Your task to perform on an android device: turn on notifications settings in the gmail app Image 0: 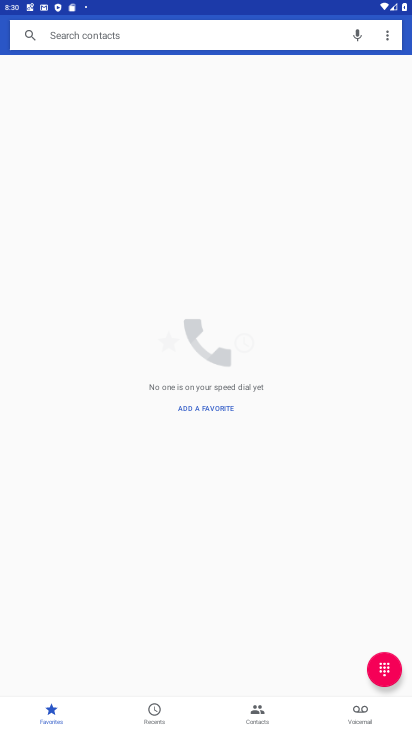
Step 0: press home button
Your task to perform on an android device: turn on notifications settings in the gmail app Image 1: 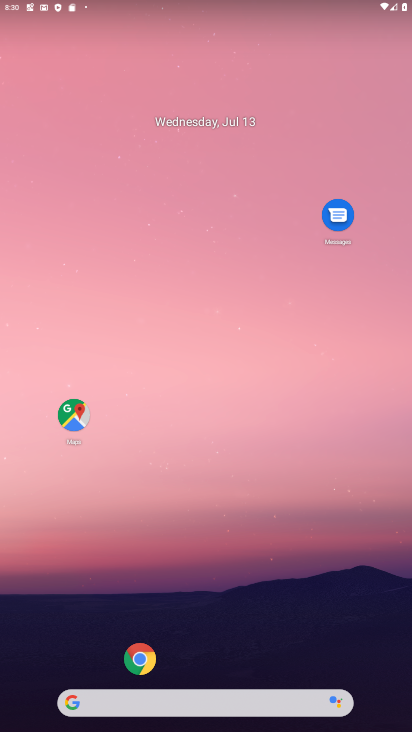
Step 1: drag from (29, 713) to (240, 16)
Your task to perform on an android device: turn on notifications settings in the gmail app Image 2: 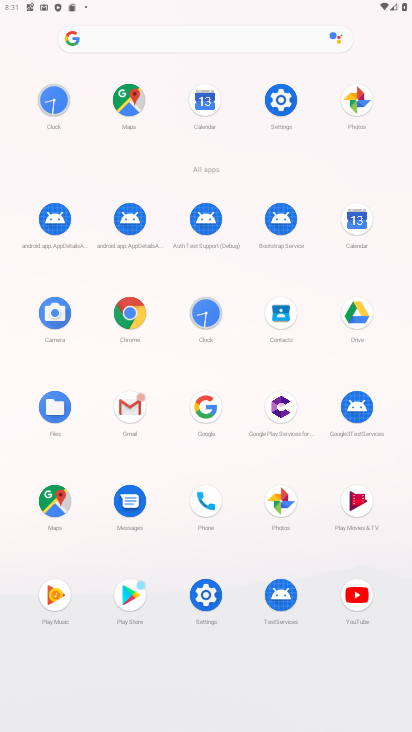
Step 2: click (143, 406)
Your task to perform on an android device: turn on notifications settings in the gmail app Image 3: 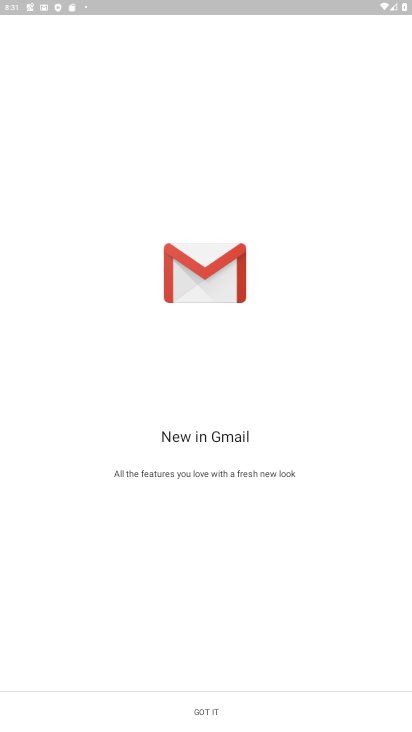
Step 3: click (207, 707)
Your task to perform on an android device: turn on notifications settings in the gmail app Image 4: 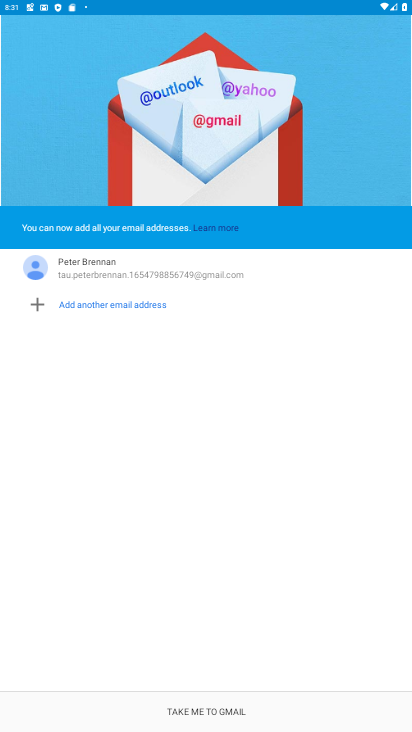
Step 4: click (204, 710)
Your task to perform on an android device: turn on notifications settings in the gmail app Image 5: 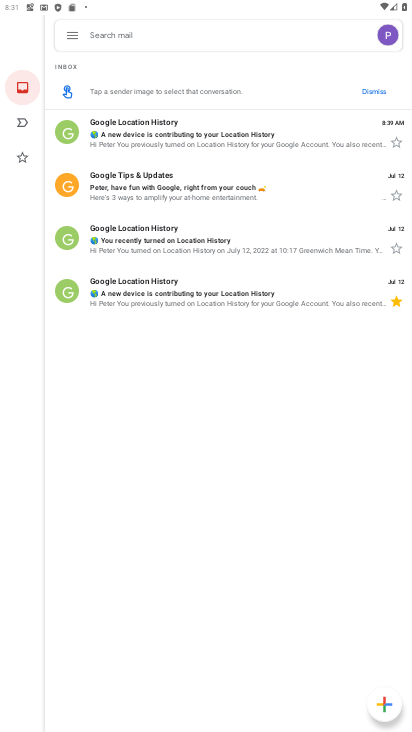
Step 5: click (73, 39)
Your task to perform on an android device: turn on notifications settings in the gmail app Image 6: 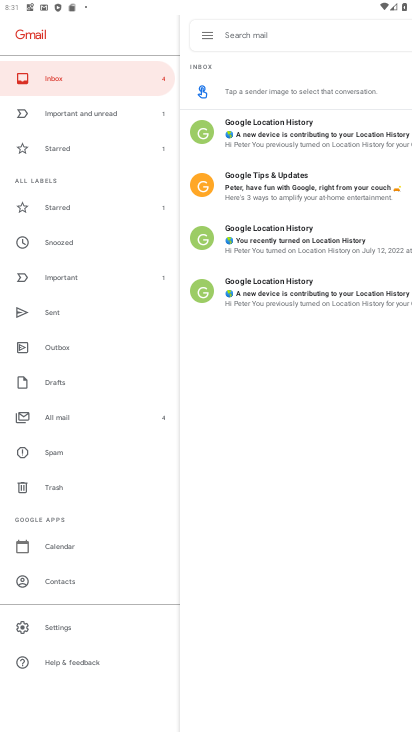
Step 6: click (58, 627)
Your task to perform on an android device: turn on notifications settings in the gmail app Image 7: 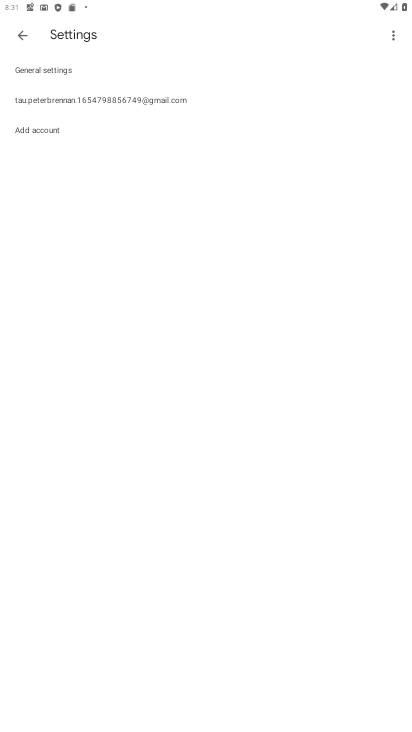
Step 7: click (77, 103)
Your task to perform on an android device: turn on notifications settings in the gmail app Image 8: 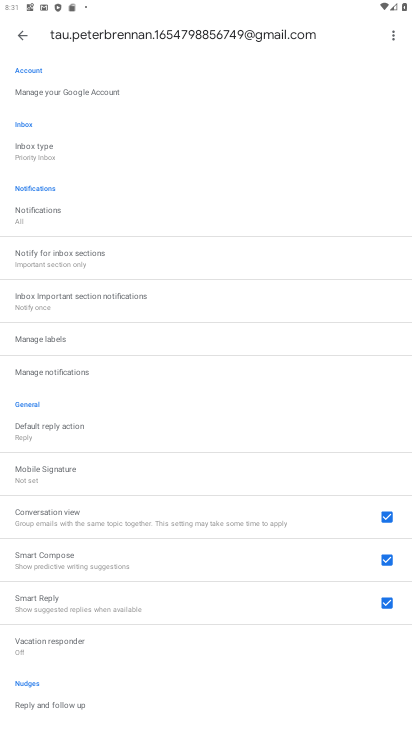
Step 8: click (47, 209)
Your task to perform on an android device: turn on notifications settings in the gmail app Image 9: 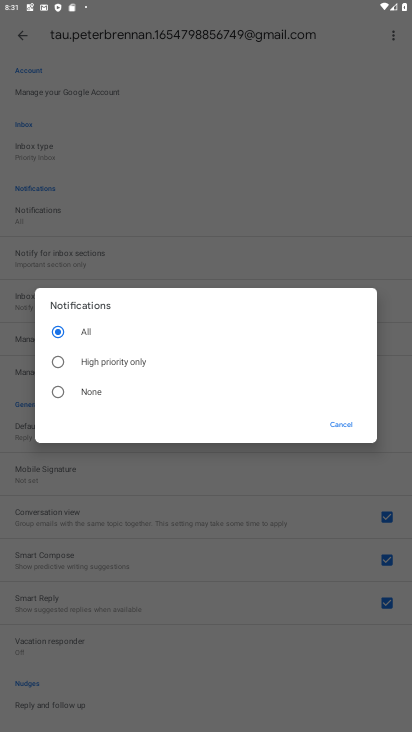
Step 9: click (165, 181)
Your task to perform on an android device: turn on notifications settings in the gmail app Image 10: 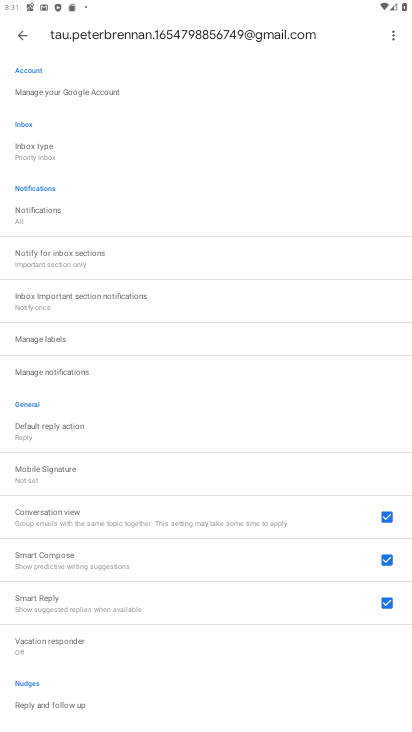
Step 10: task complete